Your task to perform on an android device: turn on sleep mode Image 0: 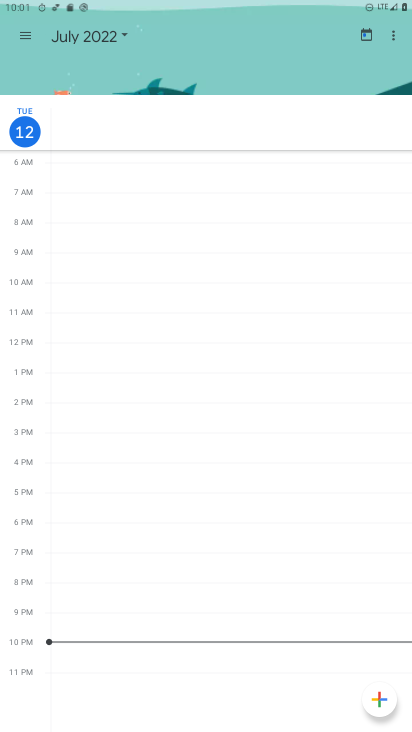
Step 0: press home button
Your task to perform on an android device: turn on sleep mode Image 1: 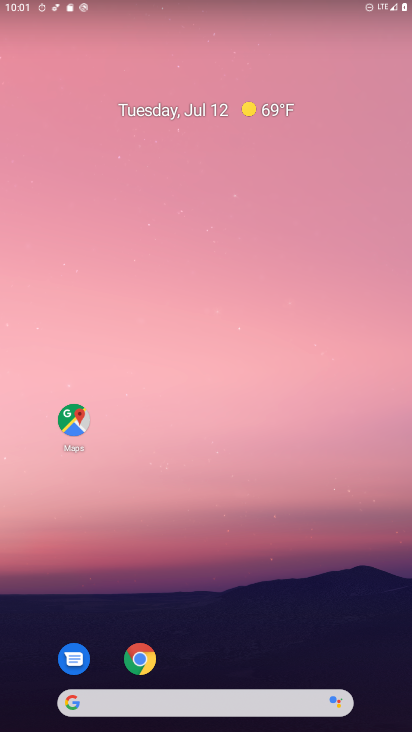
Step 1: drag from (224, 730) to (198, 138)
Your task to perform on an android device: turn on sleep mode Image 2: 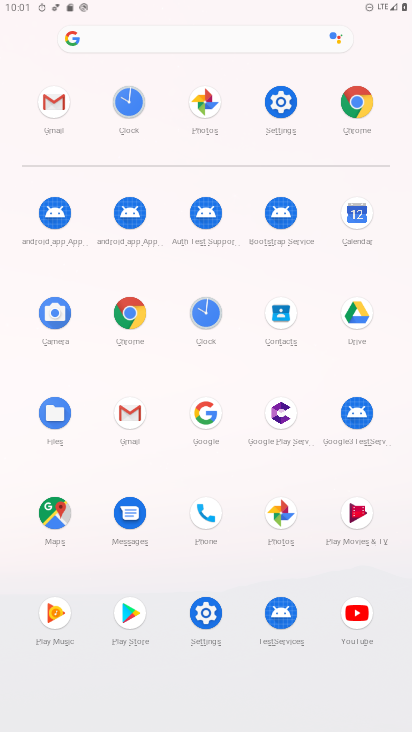
Step 2: click (286, 99)
Your task to perform on an android device: turn on sleep mode Image 3: 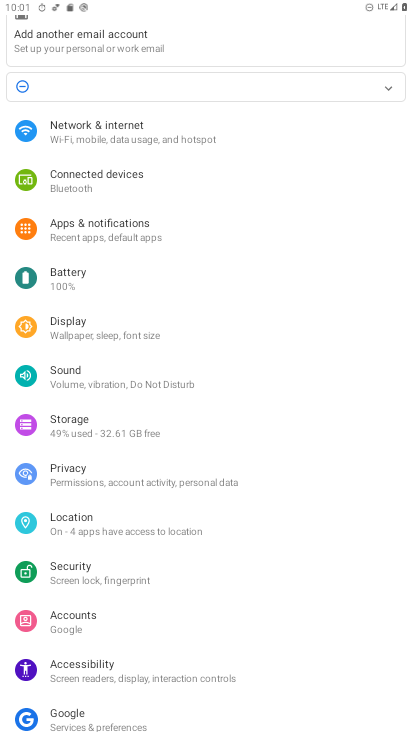
Step 3: click (87, 328)
Your task to perform on an android device: turn on sleep mode Image 4: 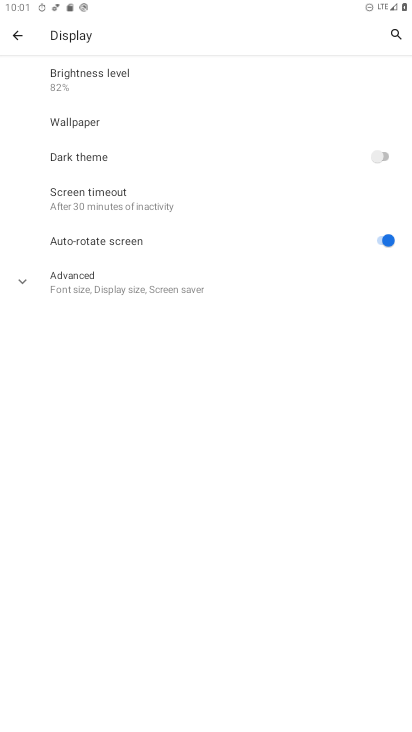
Step 4: task complete